Your task to perform on an android device: Open accessibility settings Image 0: 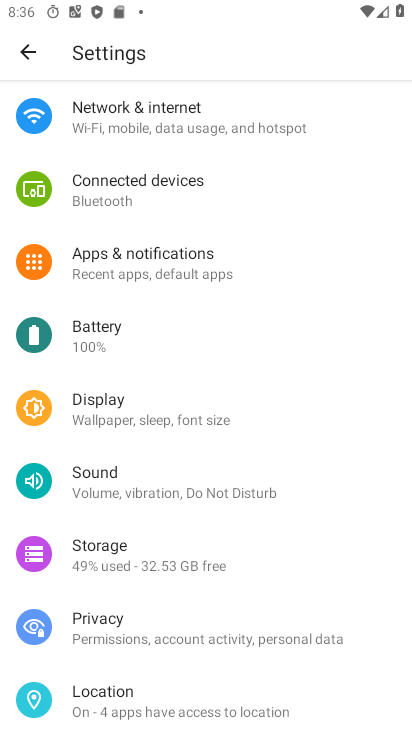
Step 0: drag from (148, 626) to (200, 329)
Your task to perform on an android device: Open accessibility settings Image 1: 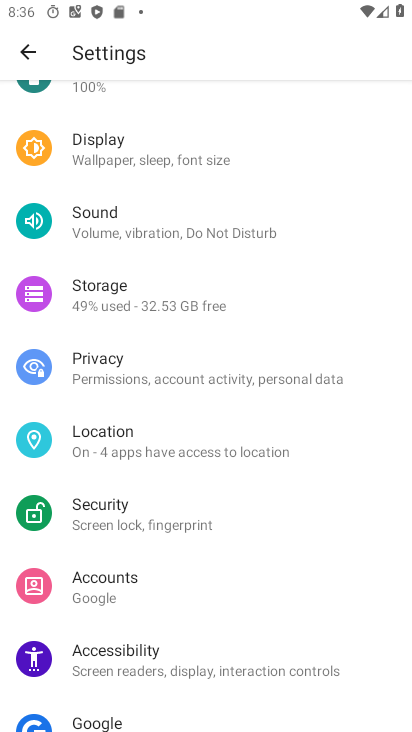
Step 1: click (129, 669)
Your task to perform on an android device: Open accessibility settings Image 2: 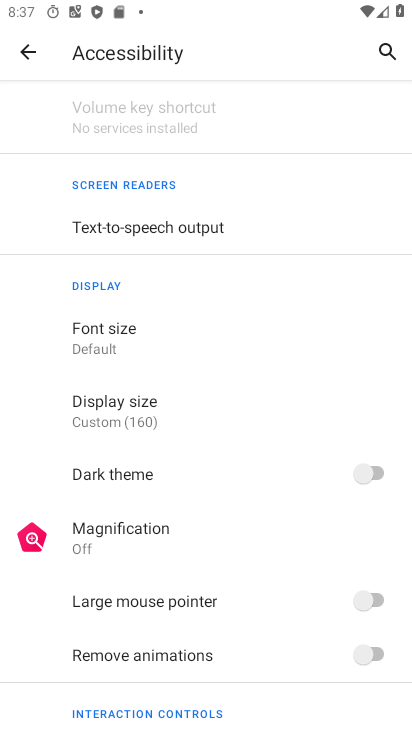
Step 2: task complete